Your task to perform on an android device: allow cookies in the chrome app Image 0: 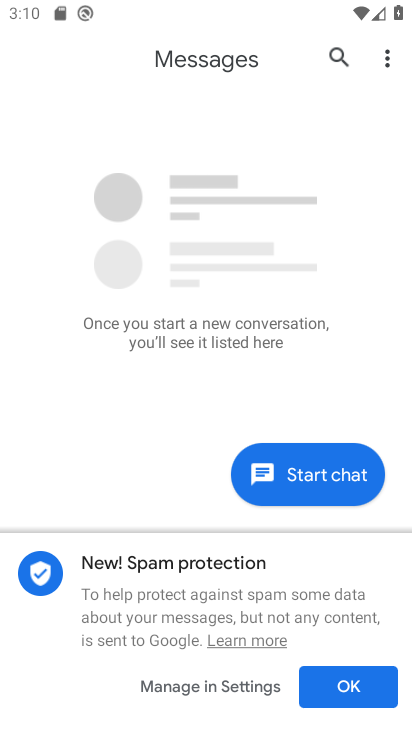
Step 0: press home button
Your task to perform on an android device: allow cookies in the chrome app Image 1: 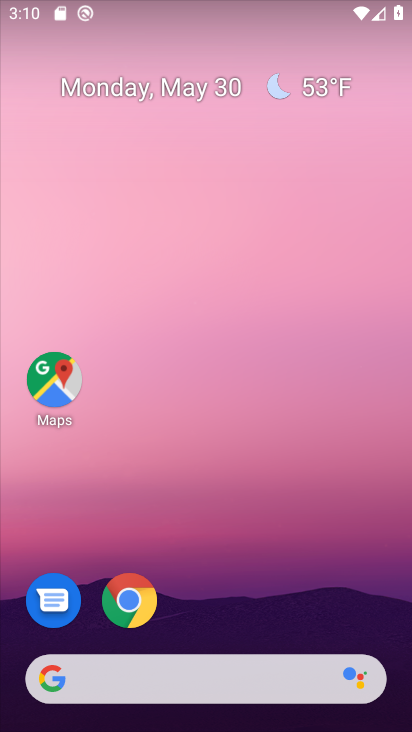
Step 1: drag from (356, 540) to (319, 130)
Your task to perform on an android device: allow cookies in the chrome app Image 2: 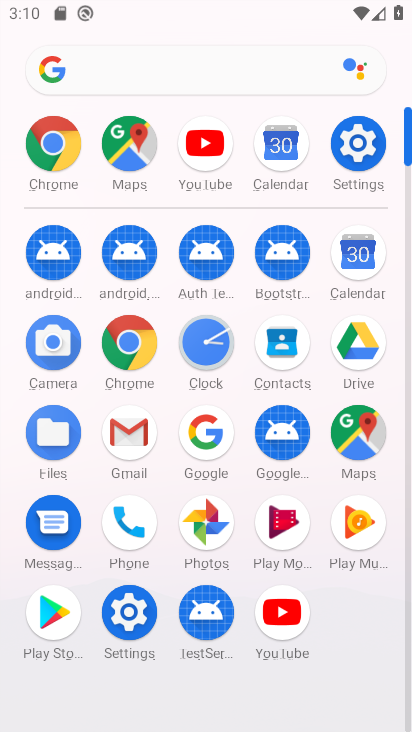
Step 2: click (67, 153)
Your task to perform on an android device: allow cookies in the chrome app Image 3: 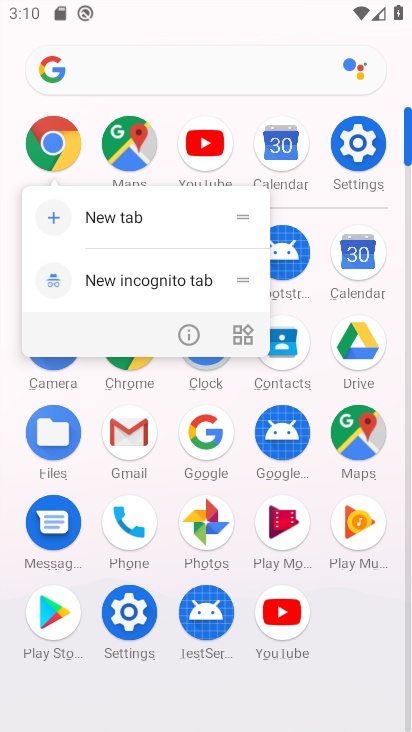
Step 3: click (70, 152)
Your task to perform on an android device: allow cookies in the chrome app Image 4: 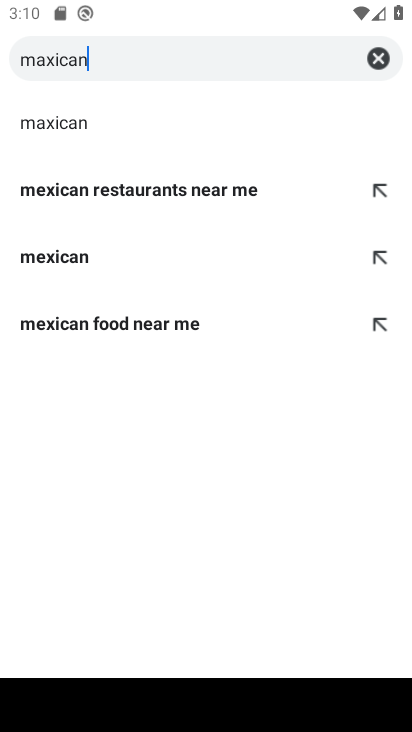
Step 4: click (382, 57)
Your task to perform on an android device: allow cookies in the chrome app Image 5: 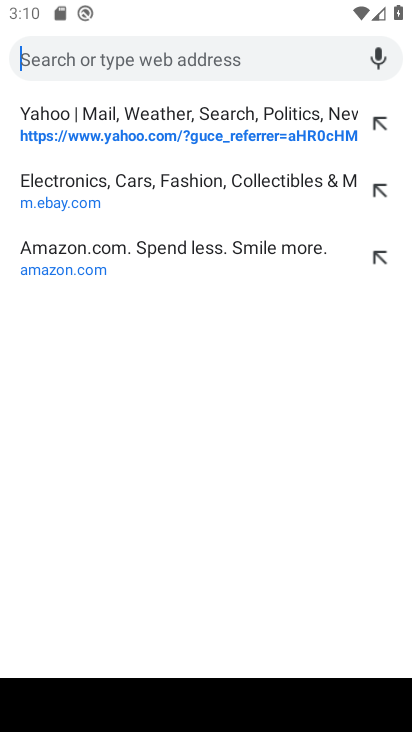
Step 5: press back button
Your task to perform on an android device: allow cookies in the chrome app Image 6: 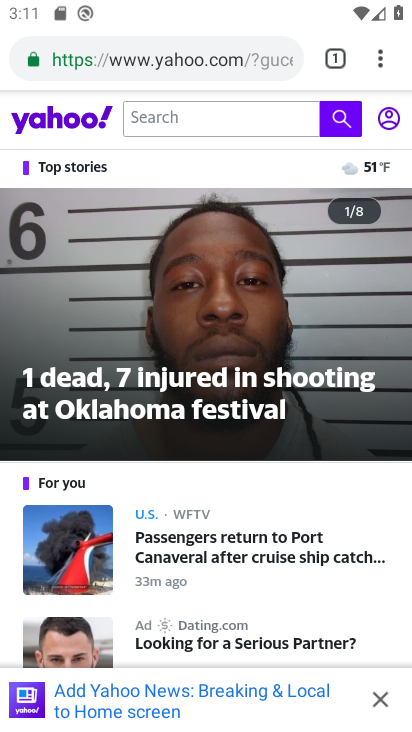
Step 6: drag from (387, 58) to (168, 626)
Your task to perform on an android device: allow cookies in the chrome app Image 7: 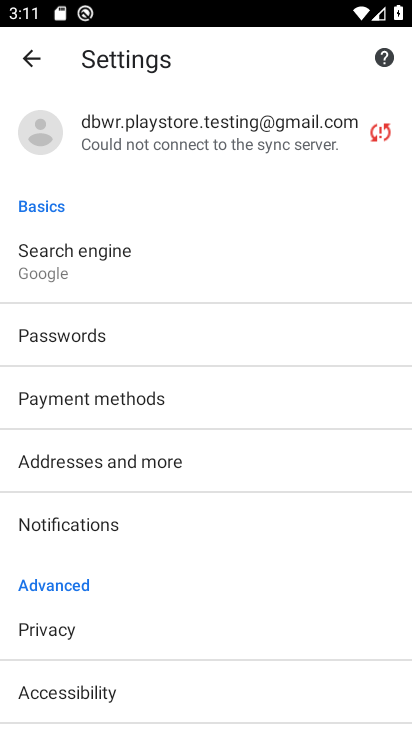
Step 7: drag from (181, 582) to (214, 126)
Your task to perform on an android device: allow cookies in the chrome app Image 8: 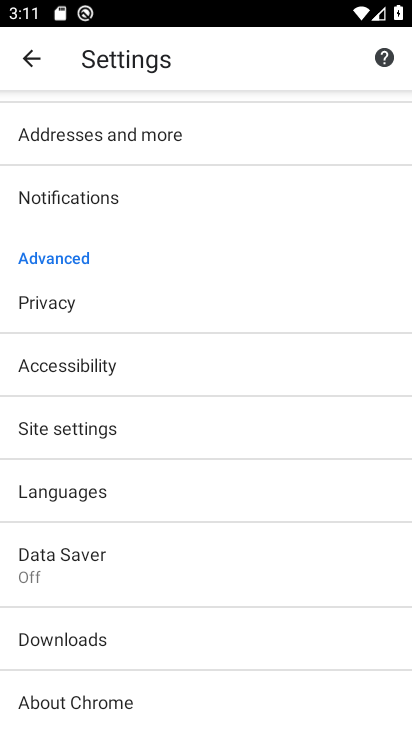
Step 8: click (108, 429)
Your task to perform on an android device: allow cookies in the chrome app Image 9: 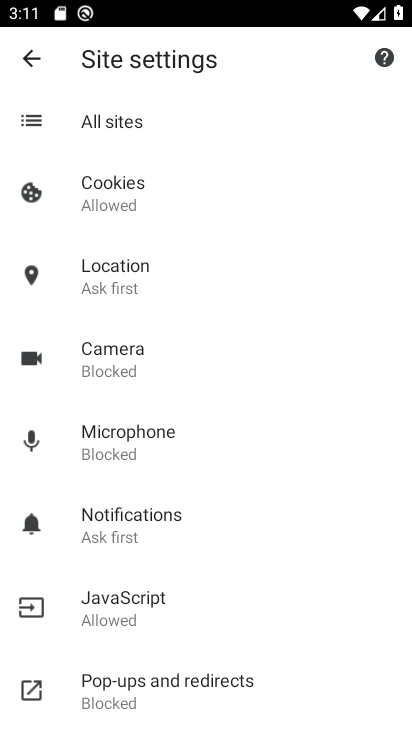
Step 9: click (134, 184)
Your task to perform on an android device: allow cookies in the chrome app Image 10: 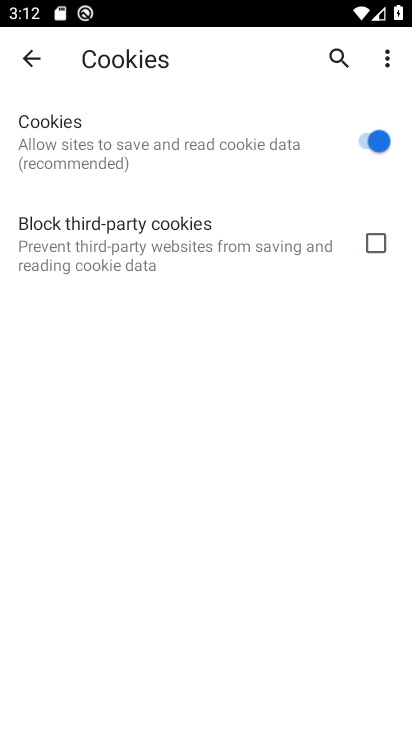
Step 10: task complete